Your task to perform on an android device: Open Google Image 0: 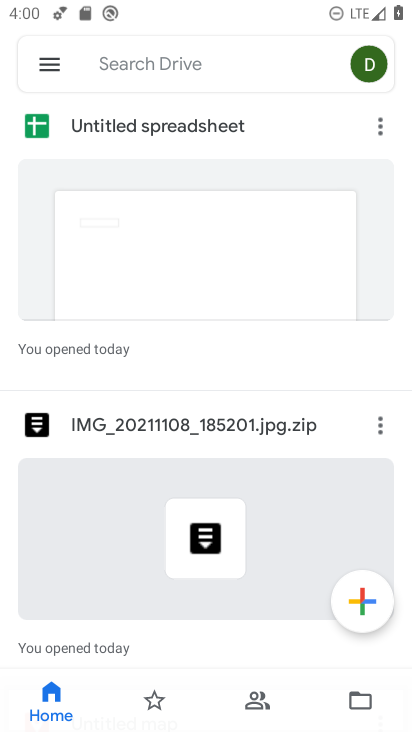
Step 0: press home button
Your task to perform on an android device: Open Google Image 1: 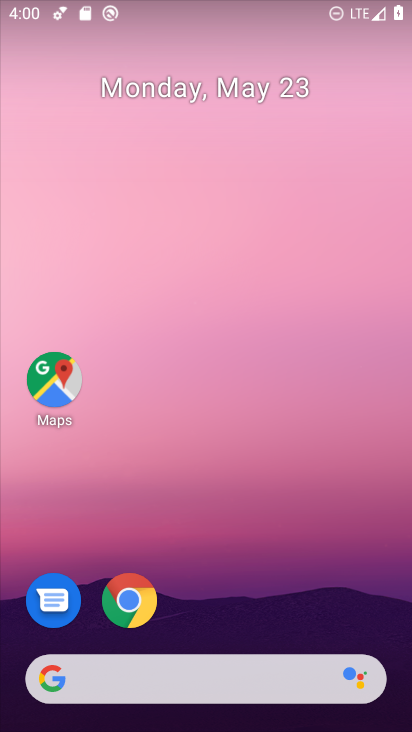
Step 1: drag from (256, 630) to (283, 16)
Your task to perform on an android device: Open Google Image 2: 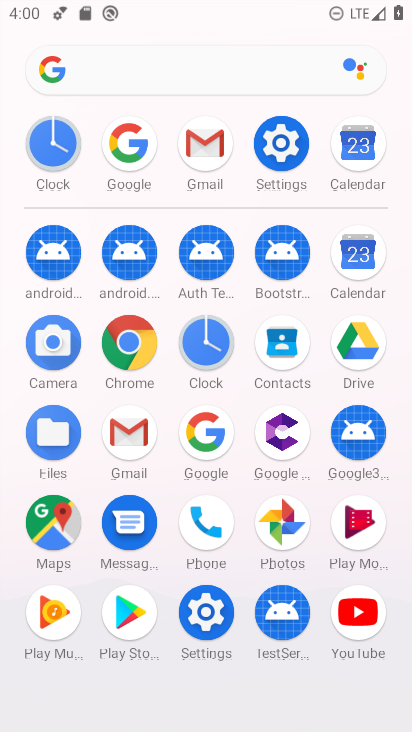
Step 2: click (197, 439)
Your task to perform on an android device: Open Google Image 3: 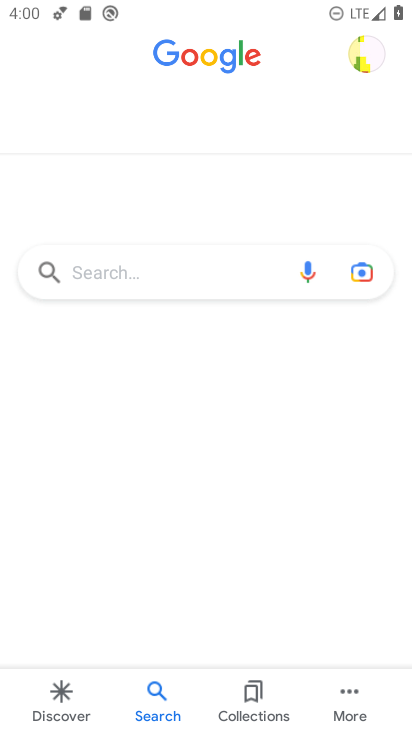
Step 3: task complete